Your task to perform on an android device: open a new tab in the chrome app Image 0: 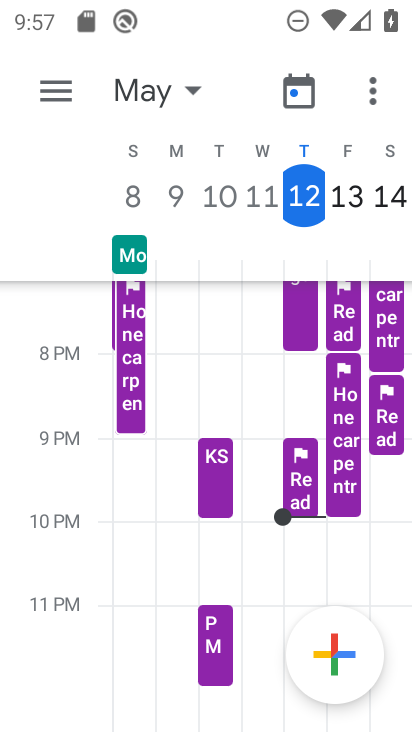
Step 0: press home button
Your task to perform on an android device: open a new tab in the chrome app Image 1: 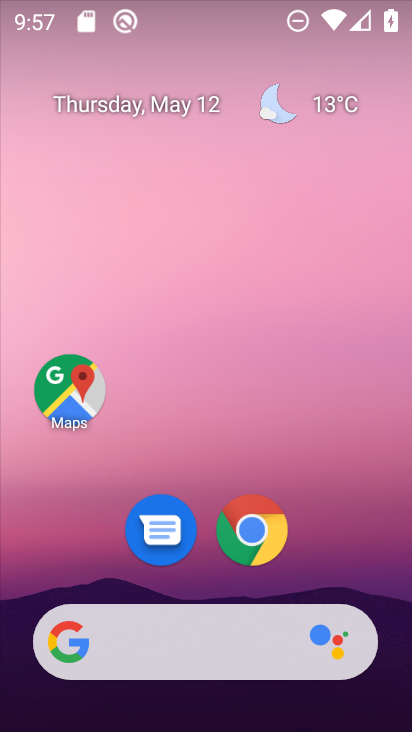
Step 1: click (277, 537)
Your task to perform on an android device: open a new tab in the chrome app Image 2: 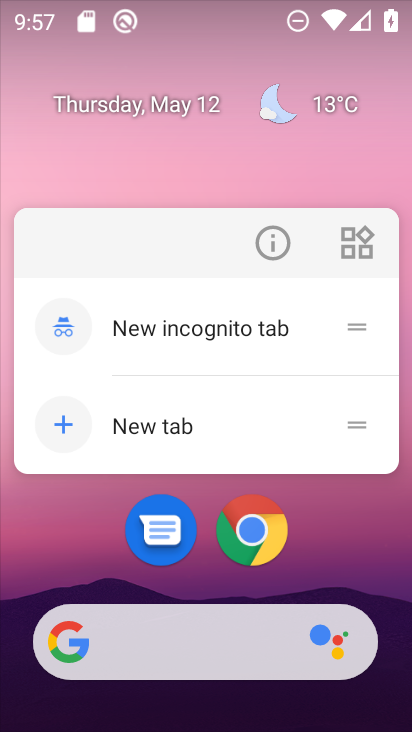
Step 2: click (276, 537)
Your task to perform on an android device: open a new tab in the chrome app Image 3: 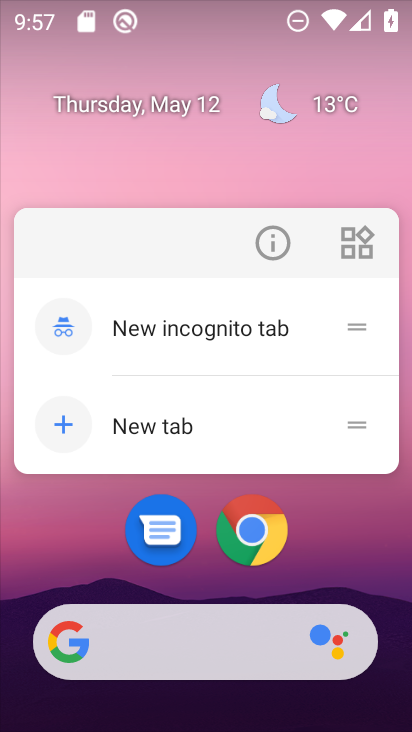
Step 3: click (192, 410)
Your task to perform on an android device: open a new tab in the chrome app Image 4: 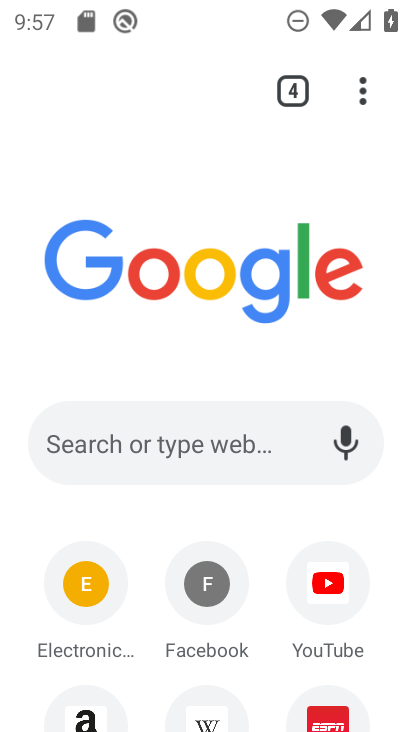
Step 4: click (290, 100)
Your task to perform on an android device: open a new tab in the chrome app Image 5: 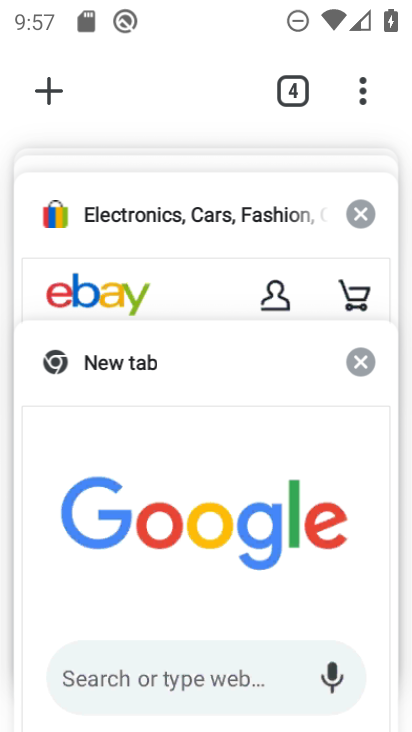
Step 5: click (212, 450)
Your task to perform on an android device: open a new tab in the chrome app Image 6: 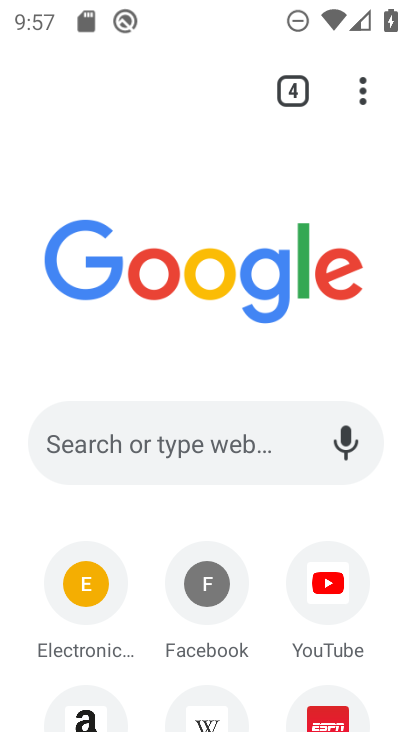
Step 6: task complete